Your task to perform on an android device: Open Android settings Image 0: 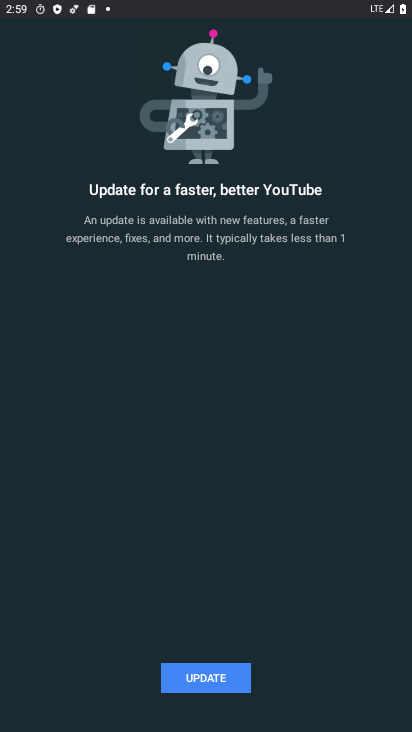
Step 0: press home button
Your task to perform on an android device: Open Android settings Image 1: 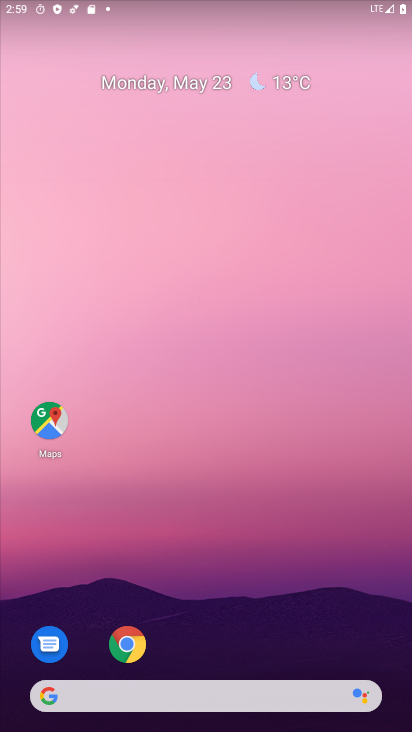
Step 1: drag from (221, 669) to (241, 5)
Your task to perform on an android device: Open Android settings Image 2: 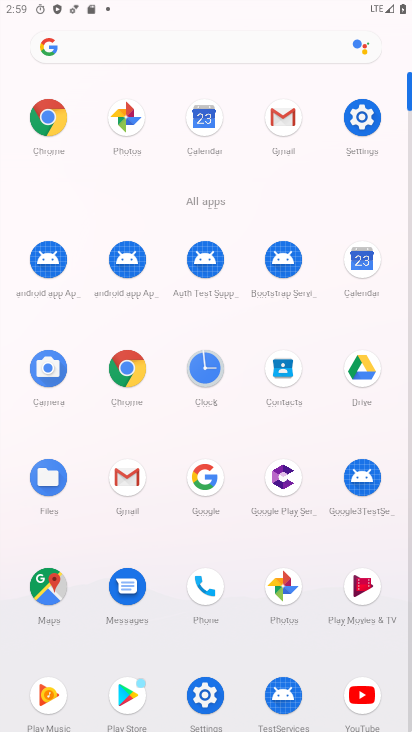
Step 2: click (360, 108)
Your task to perform on an android device: Open Android settings Image 3: 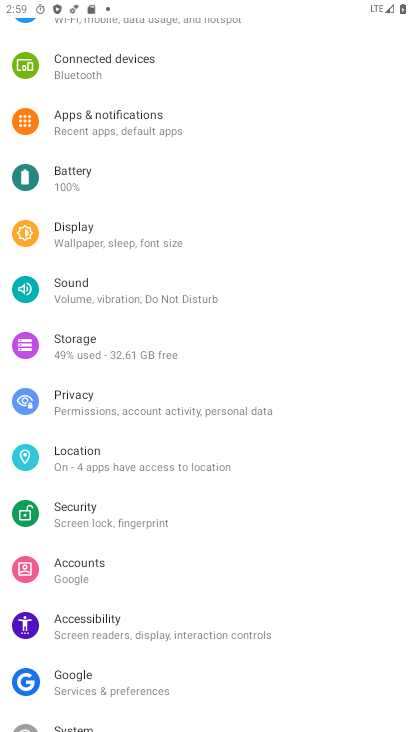
Step 3: drag from (137, 569) to (142, 156)
Your task to perform on an android device: Open Android settings Image 4: 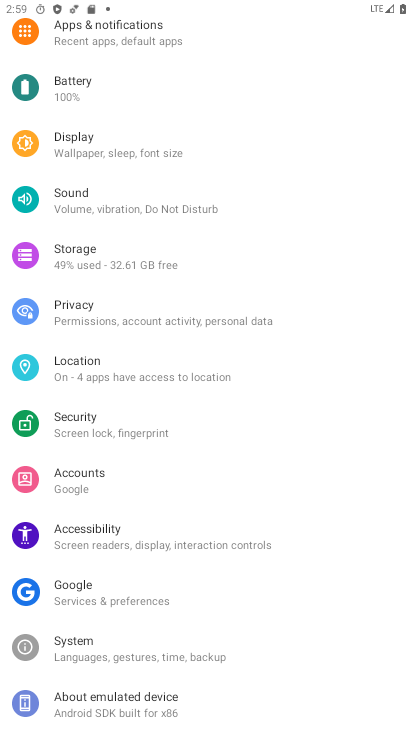
Step 4: click (87, 700)
Your task to perform on an android device: Open Android settings Image 5: 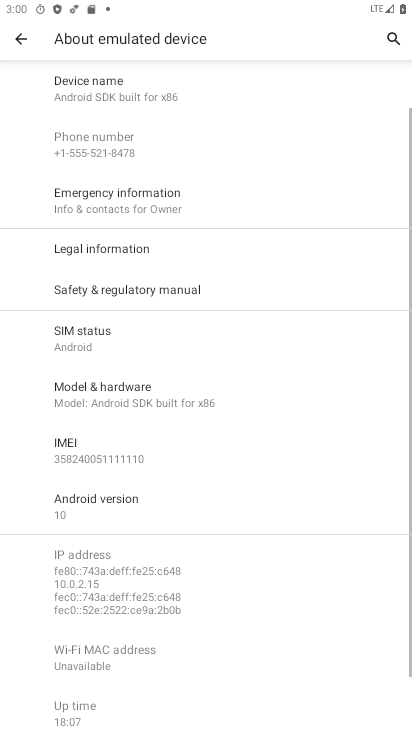
Step 5: task complete